Your task to perform on an android device: turn on javascript in the chrome app Image 0: 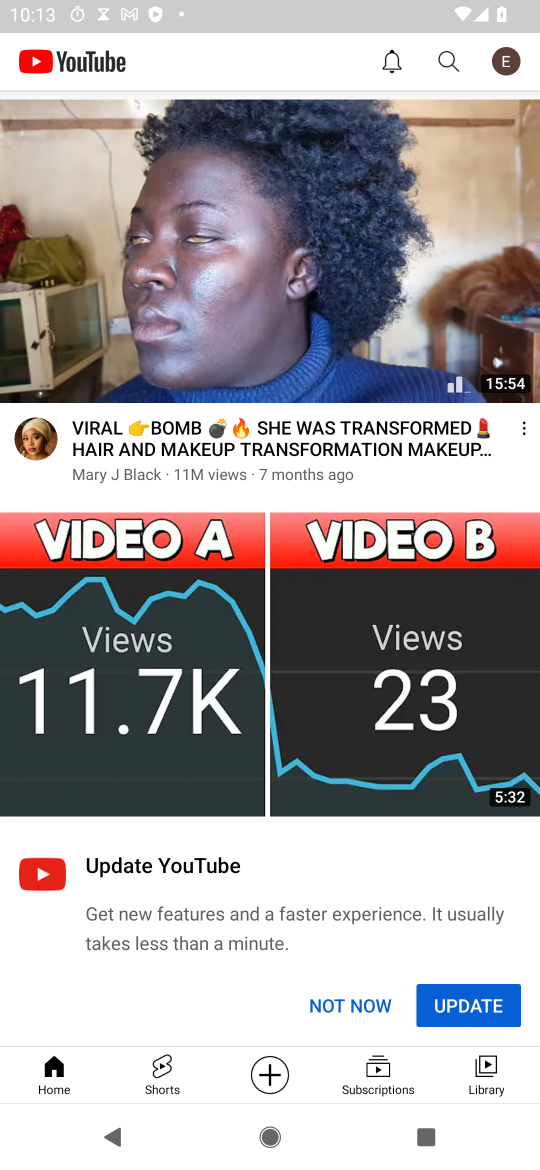
Step 0: press back button
Your task to perform on an android device: turn on javascript in the chrome app Image 1: 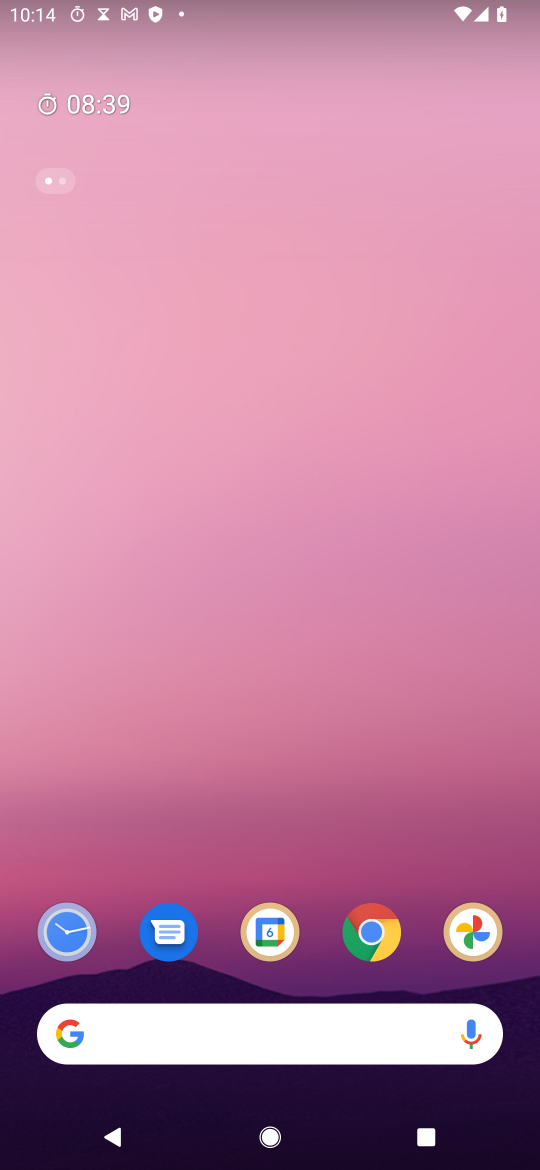
Step 1: click (381, 927)
Your task to perform on an android device: turn on javascript in the chrome app Image 2: 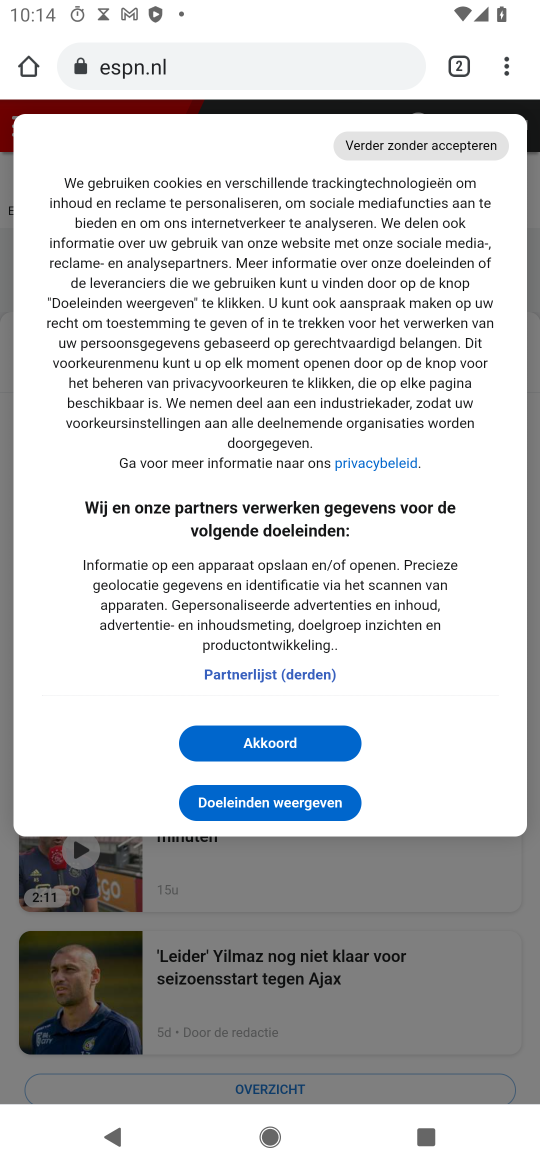
Step 2: click (503, 78)
Your task to perform on an android device: turn on javascript in the chrome app Image 3: 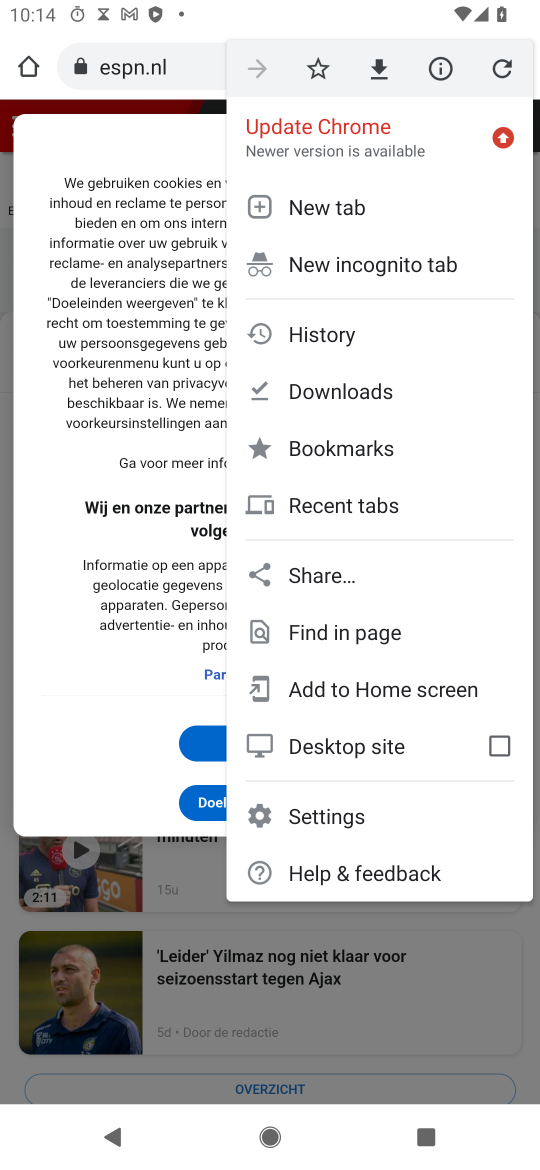
Step 3: click (374, 815)
Your task to perform on an android device: turn on javascript in the chrome app Image 4: 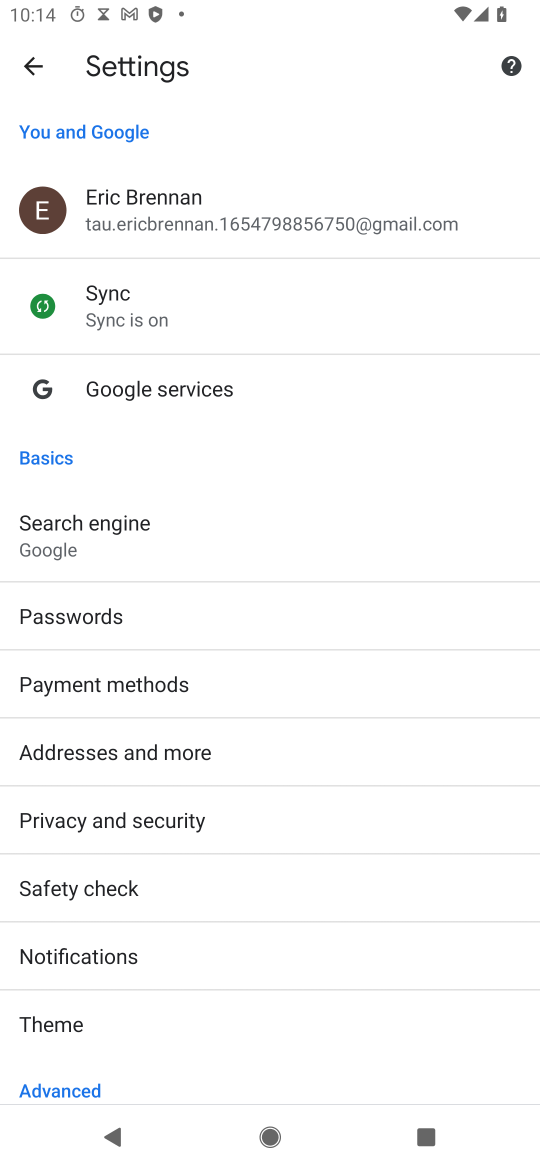
Step 4: drag from (285, 1042) to (211, 434)
Your task to perform on an android device: turn on javascript in the chrome app Image 5: 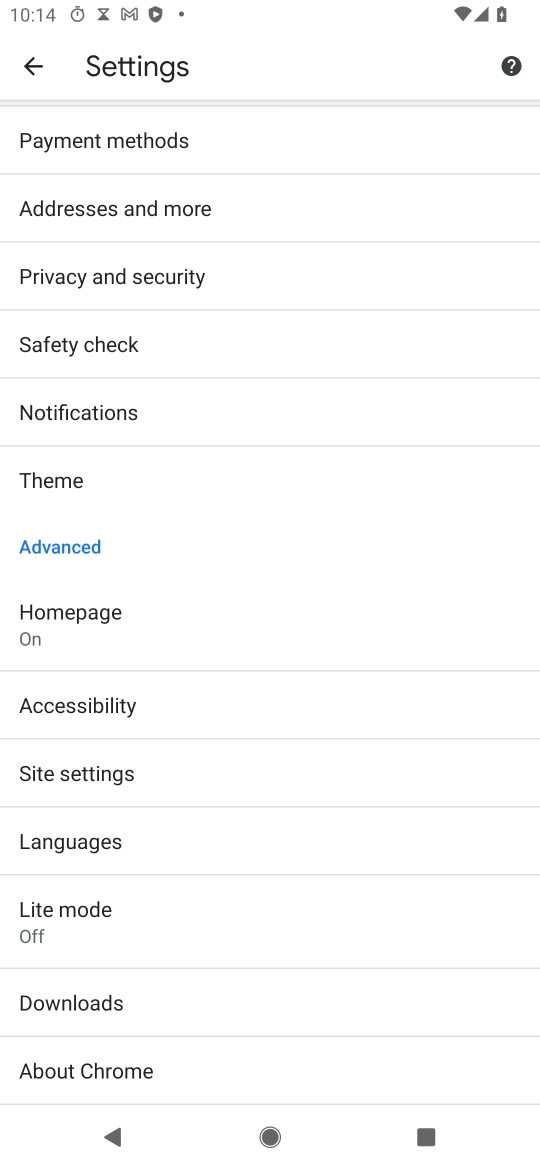
Step 5: click (202, 764)
Your task to perform on an android device: turn on javascript in the chrome app Image 6: 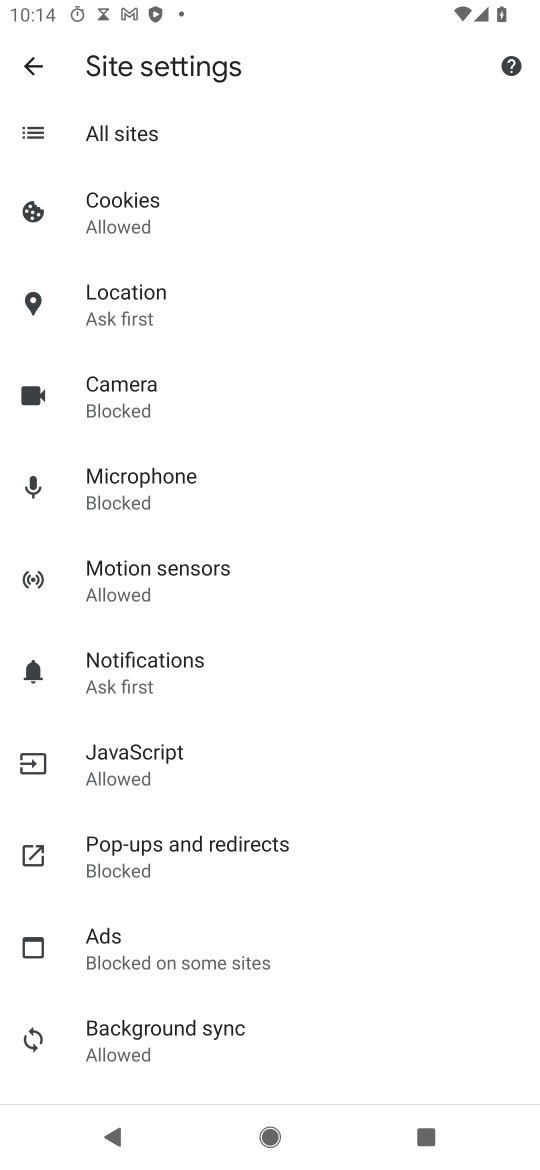
Step 6: click (253, 767)
Your task to perform on an android device: turn on javascript in the chrome app Image 7: 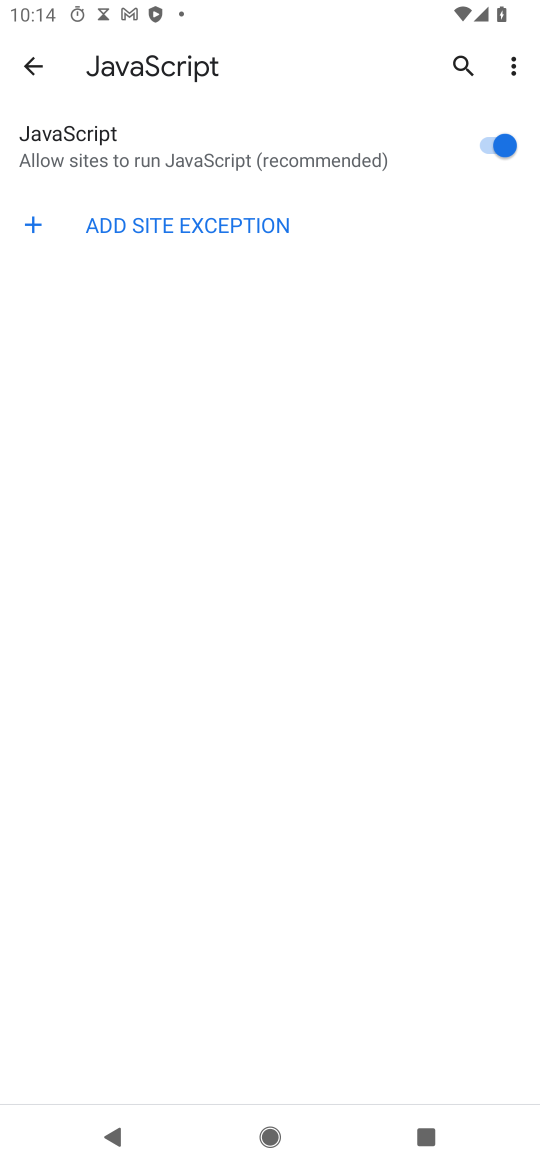
Step 7: task complete